Your task to perform on an android device: Go to sound settings Image 0: 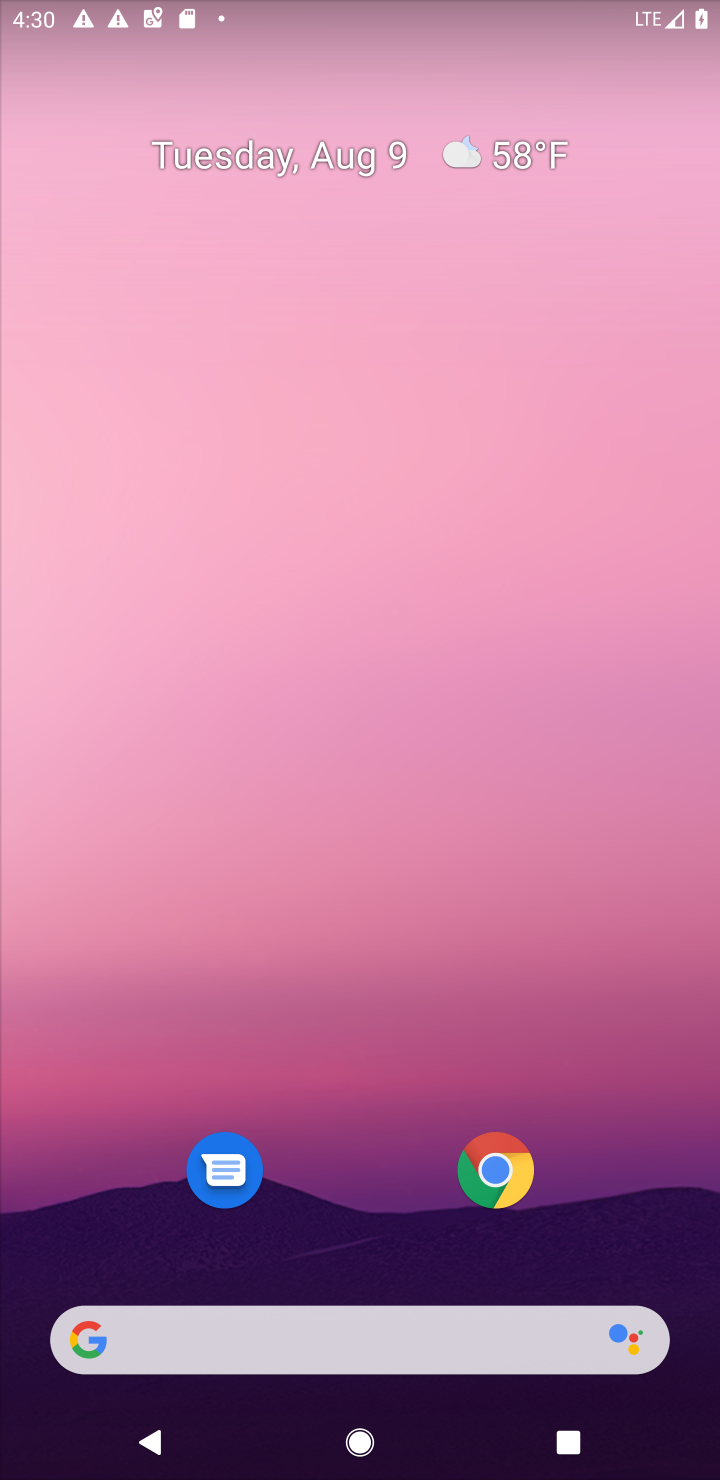
Step 0: press home button
Your task to perform on an android device: Go to sound settings Image 1: 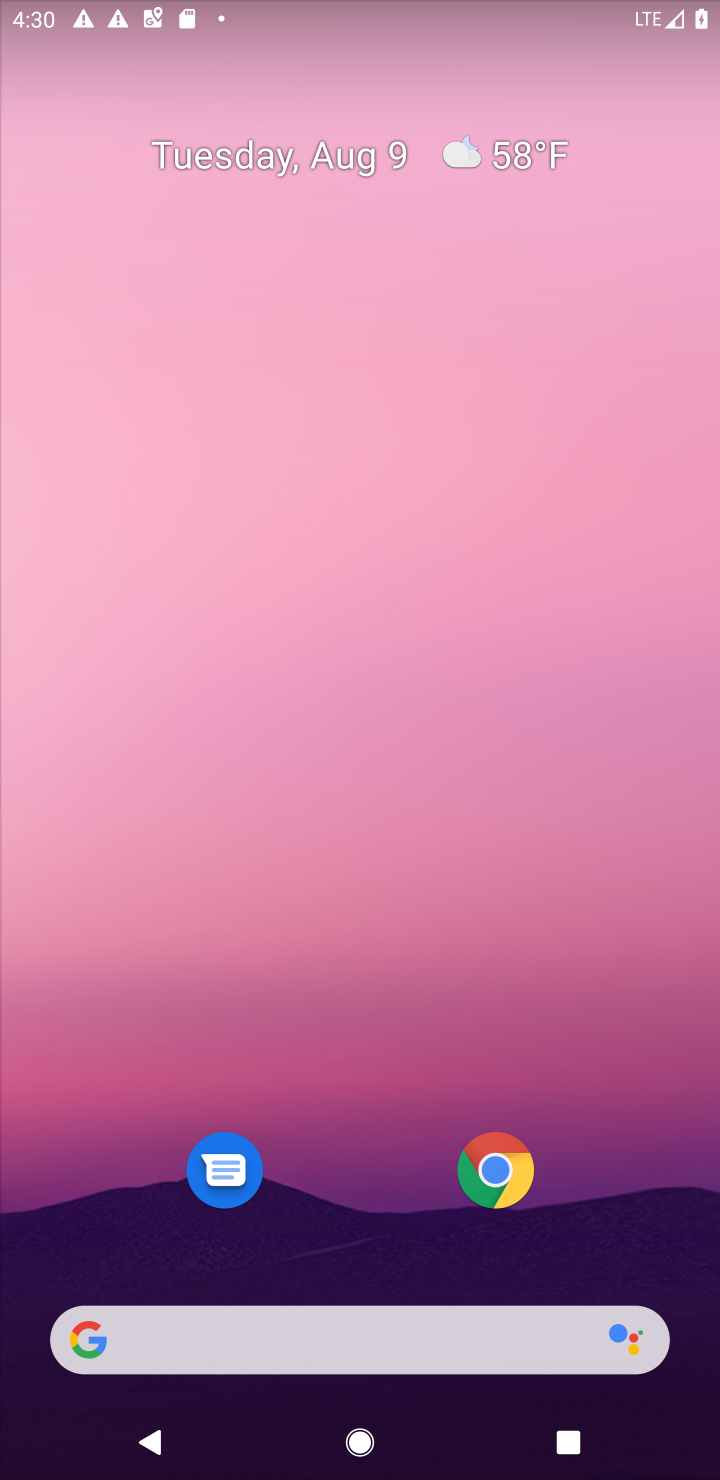
Step 1: drag from (302, 394) to (300, 260)
Your task to perform on an android device: Go to sound settings Image 2: 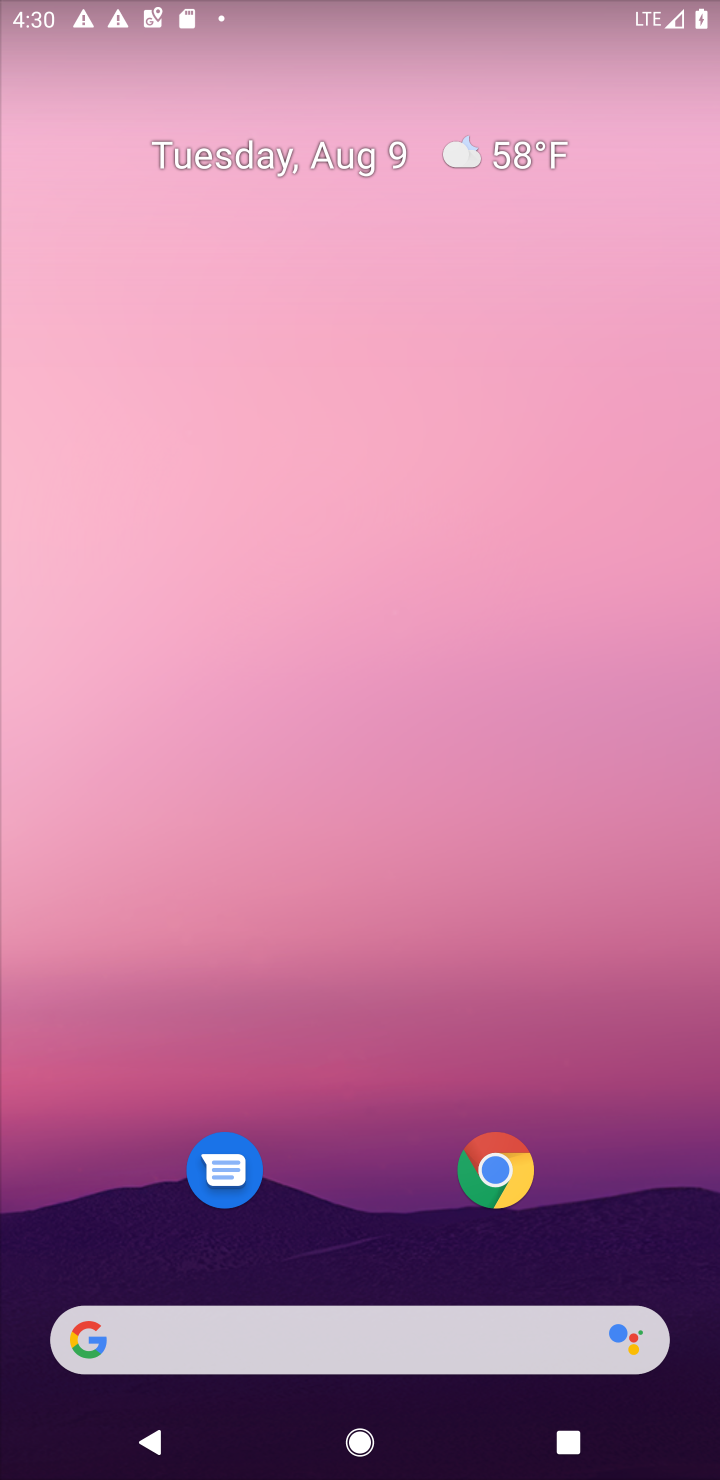
Step 2: drag from (297, 553) to (341, 97)
Your task to perform on an android device: Go to sound settings Image 3: 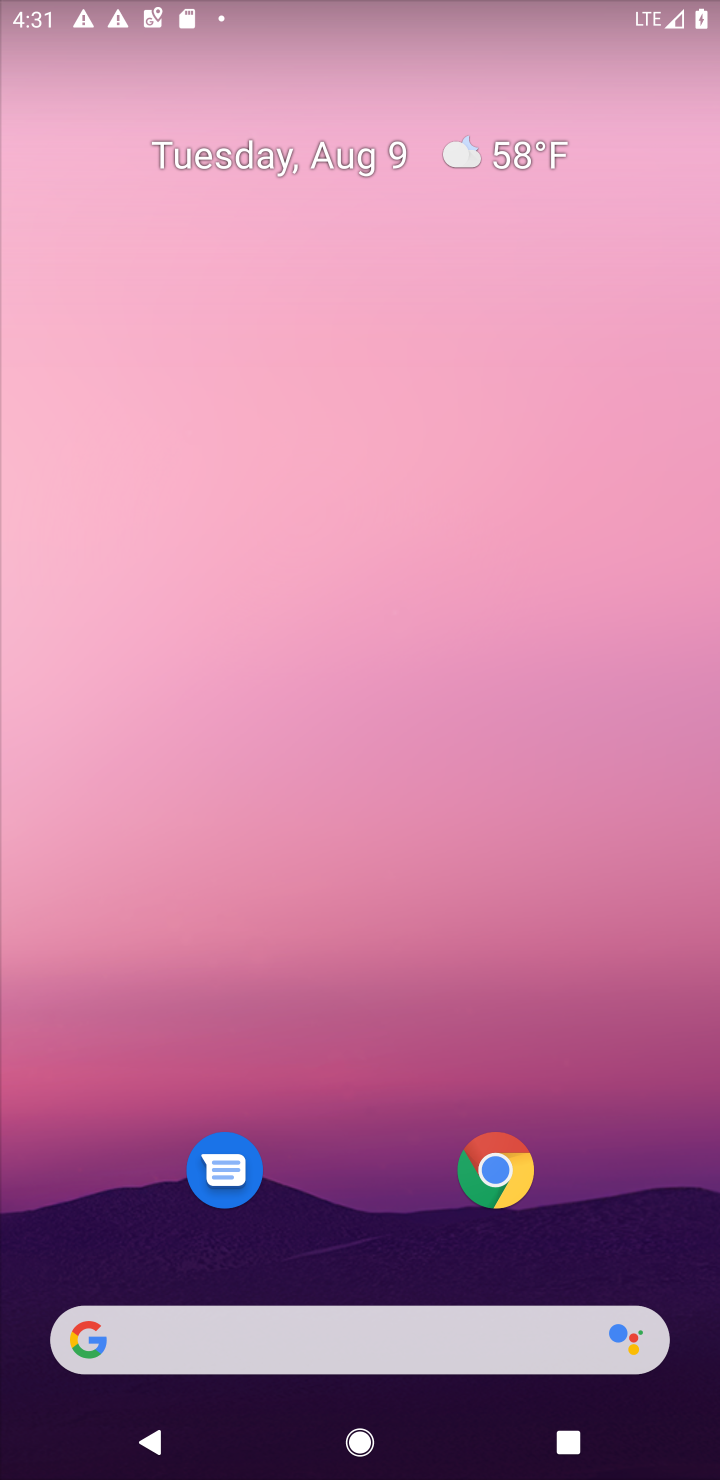
Step 3: drag from (286, 605) to (484, 33)
Your task to perform on an android device: Go to sound settings Image 4: 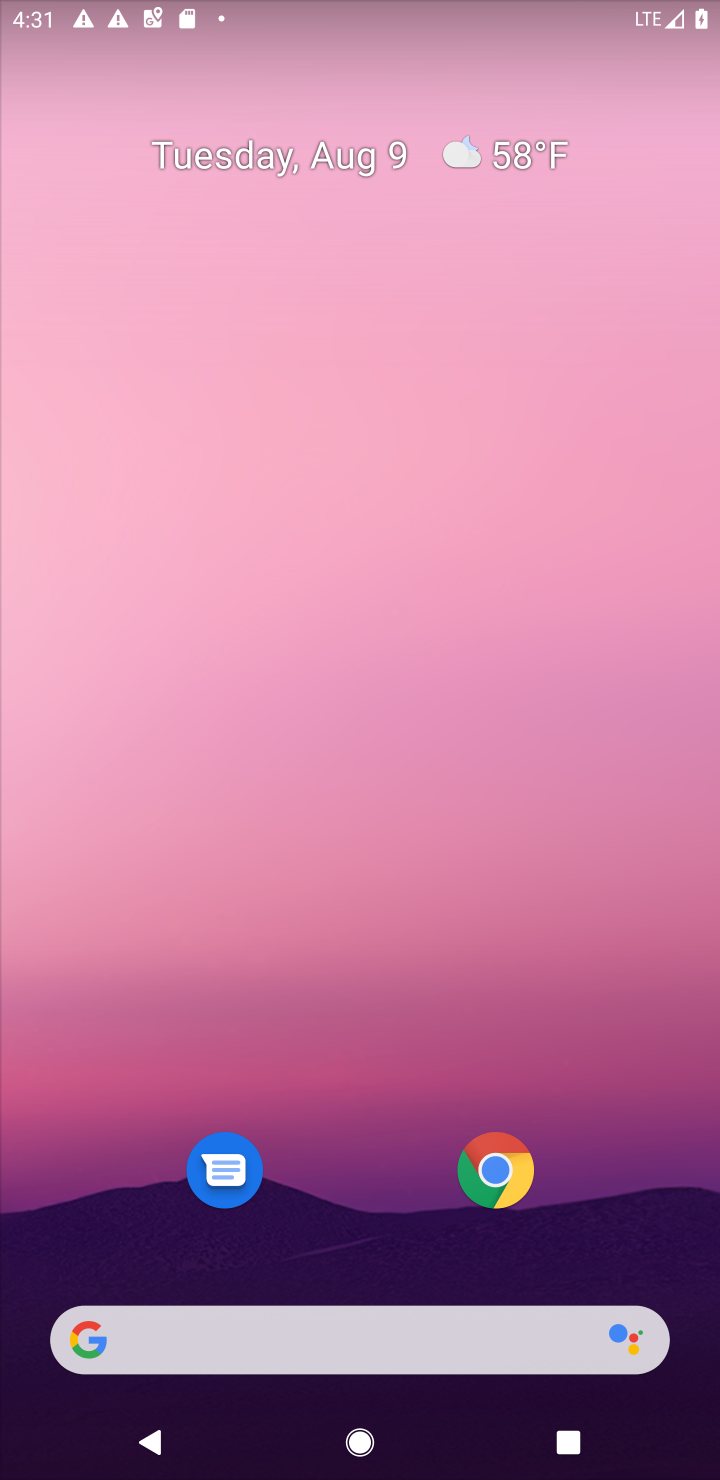
Step 4: drag from (311, 669) to (702, 1175)
Your task to perform on an android device: Go to sound settings Image 5: 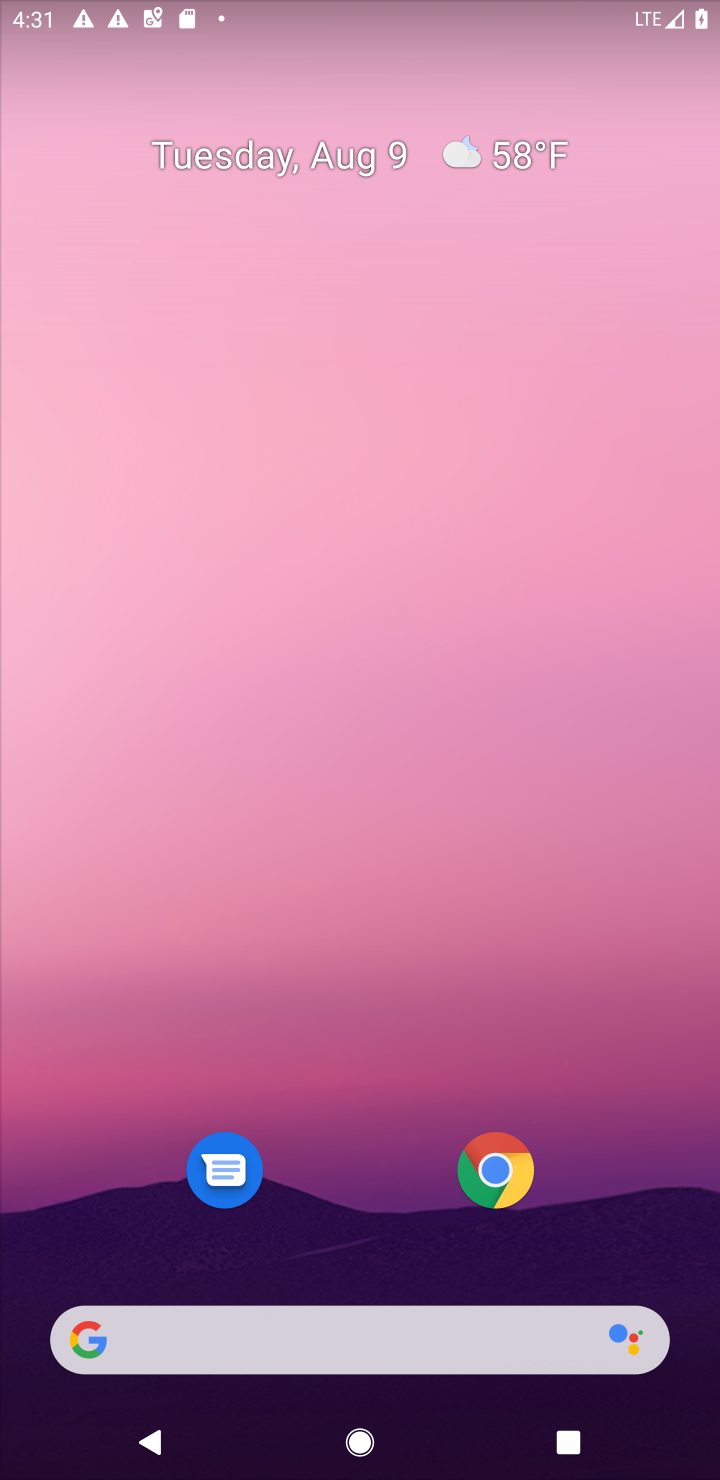
Step 5: drag from (301, 1153) to (481, 13)
Your task to perform on an android device: Go to sound settings Image 6: 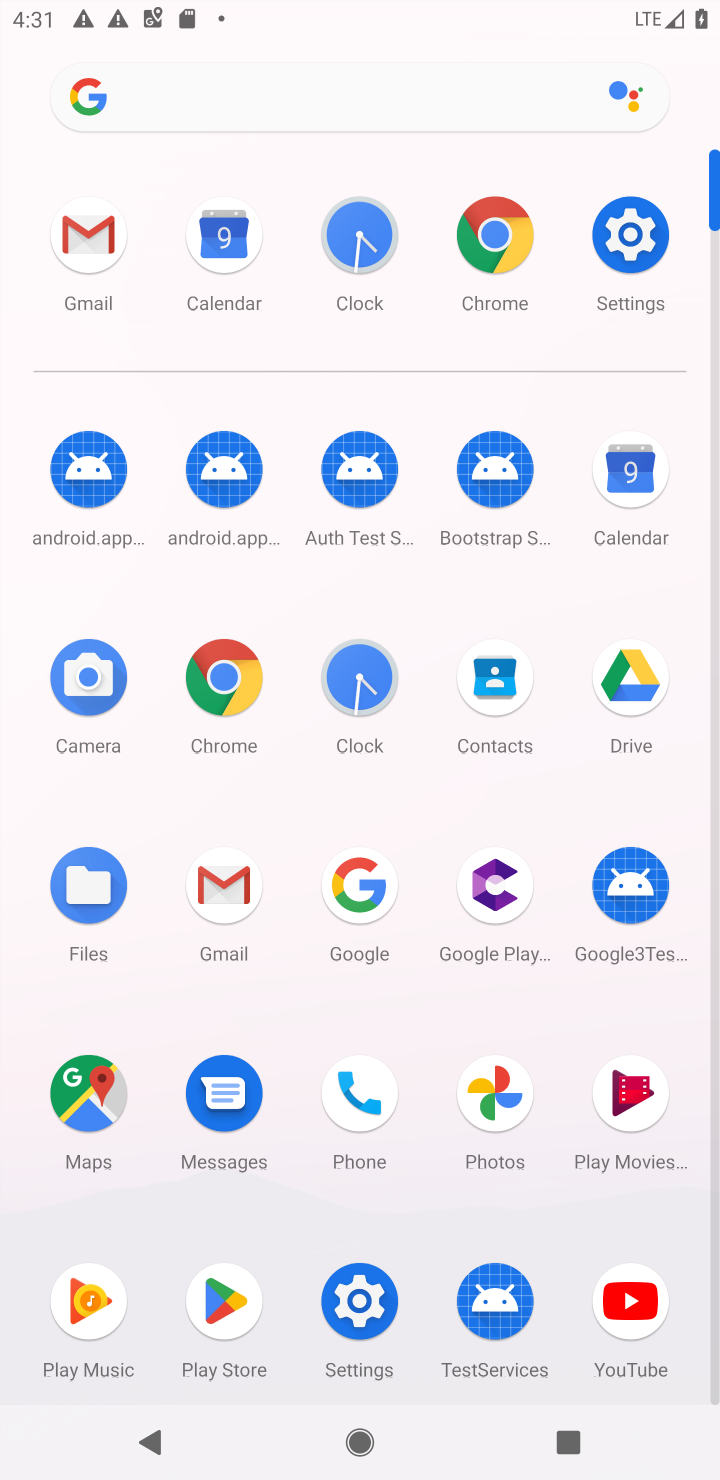
Step 6: click (631, 237)
Your task to perform on an android device: Go to sound settings Image 7: 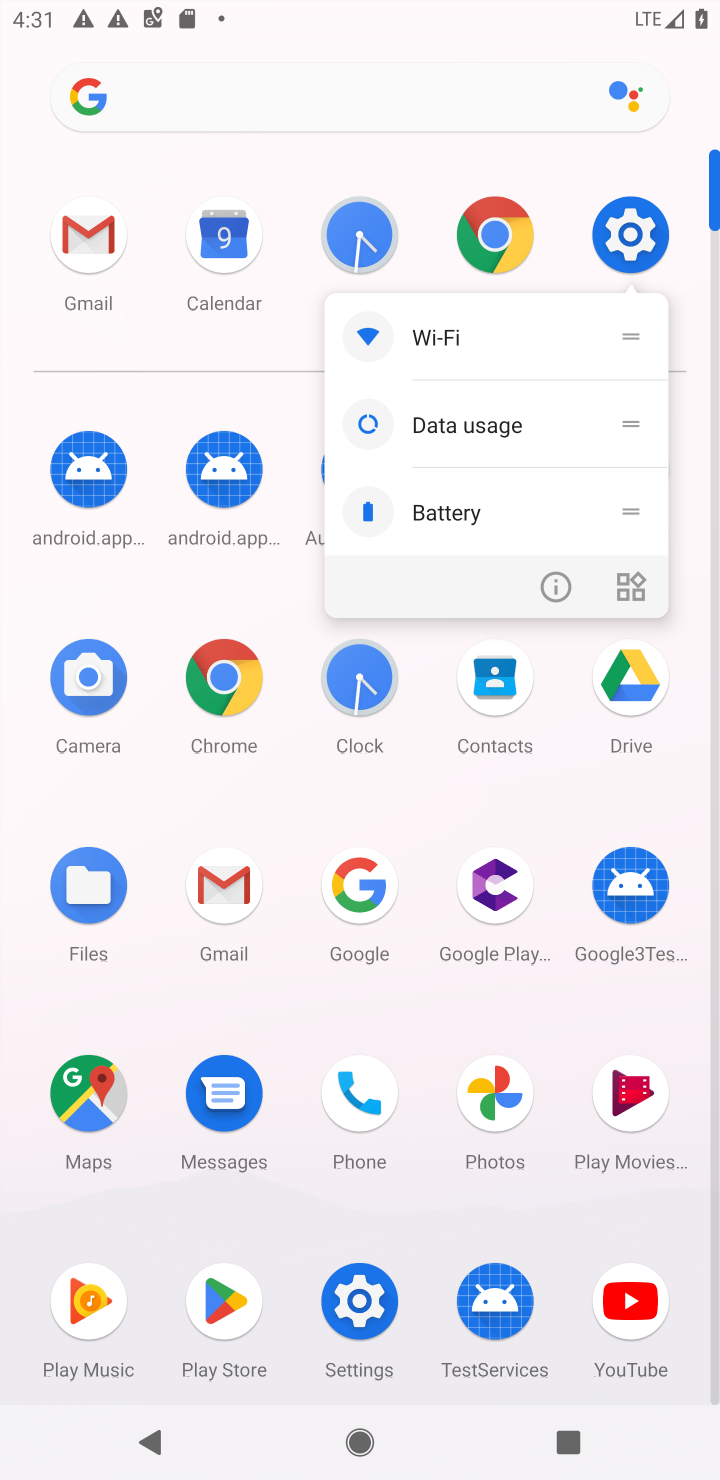
Step 7: click (637, 226)
Your task to perform on an android device: Go to sound settings Image 8: 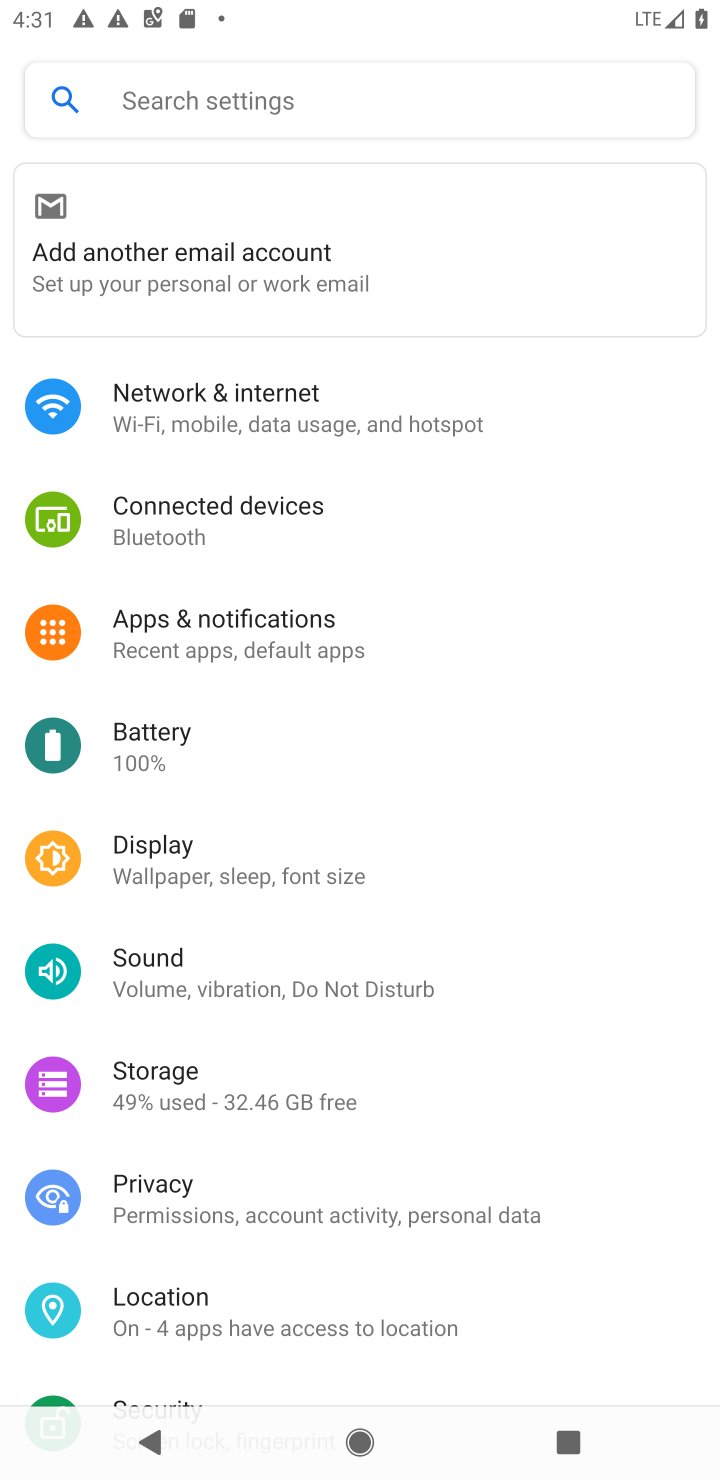
Step 8: click (176, 978)
Your task to perform on an android device: Go to sound settings Image 9: 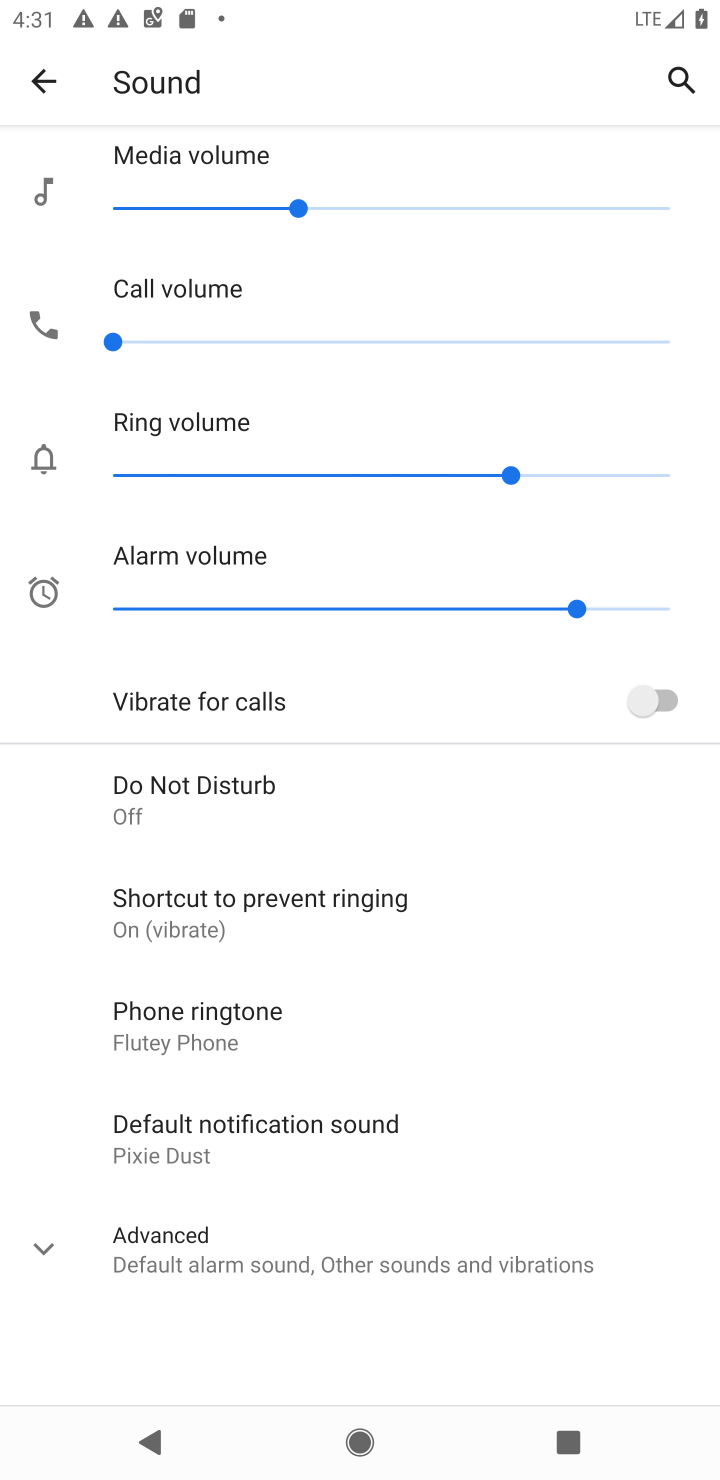
Step 9: task complete